Your task to perform on an android device: turn smart compose on in the gmail app Image 0: 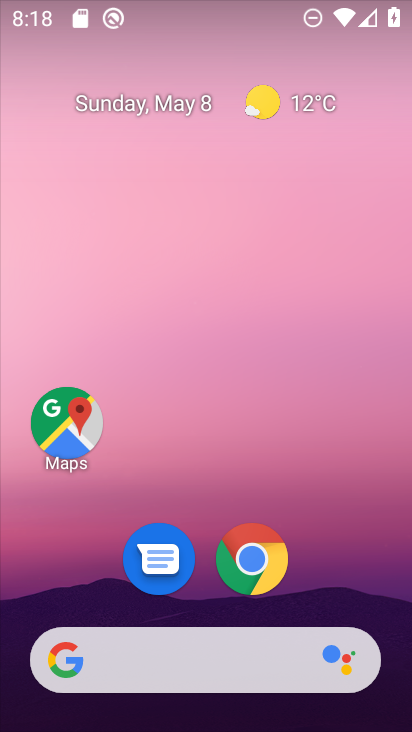
Step 0: drag from (342, 607) to (353, 0)
Your task to perform on an android device: turn smart compose on in the gmail app Image 1: 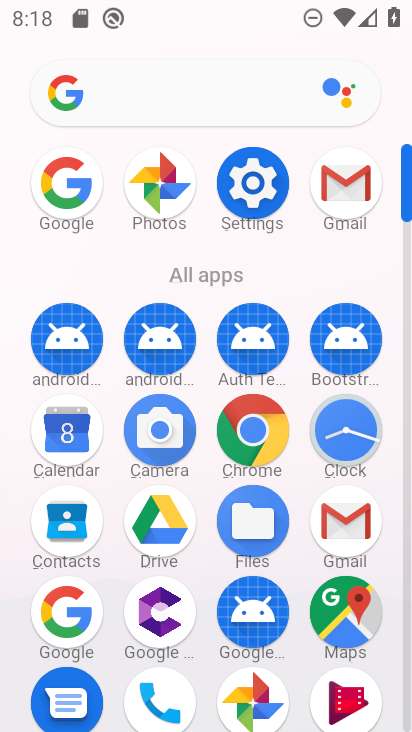
Step 1: click (346, 192)
Your task to perform on an android device: turn smart compose on in the gmail app Image 2: 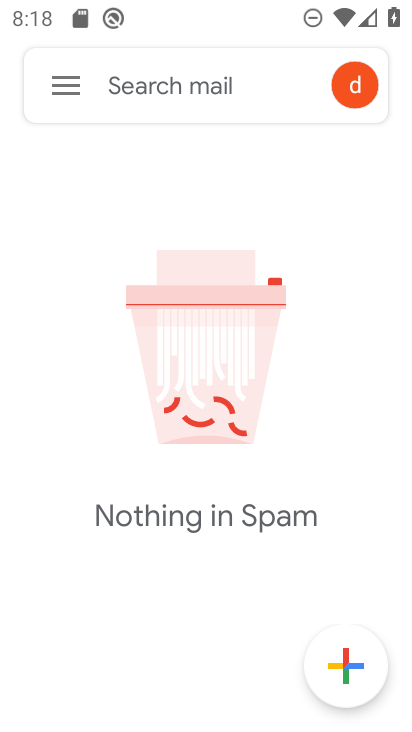
Step 2: click (81, 82)
Your task to perform on an android device: turn smart compose on in the gmail app Image 3: 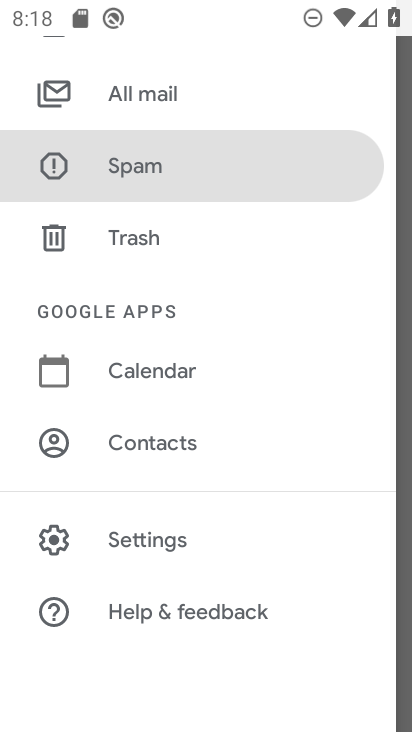
Step 3: click (141, 532)
Your task to perform on an android device: turn smart compose on in the gmail app Image 4: 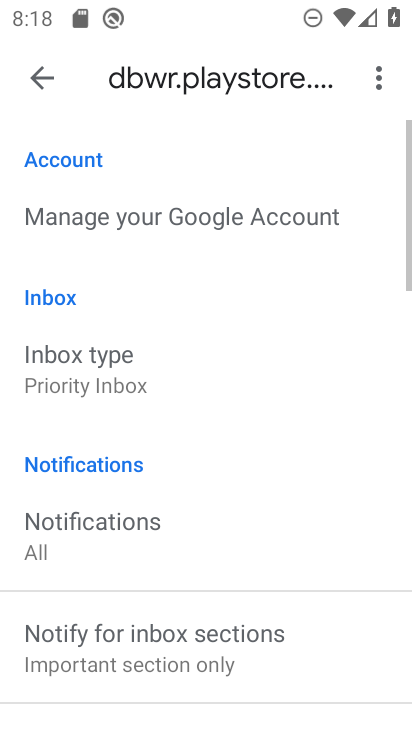
Step 4: task complete